Your task to perform on an android device: add a contact Image 0: 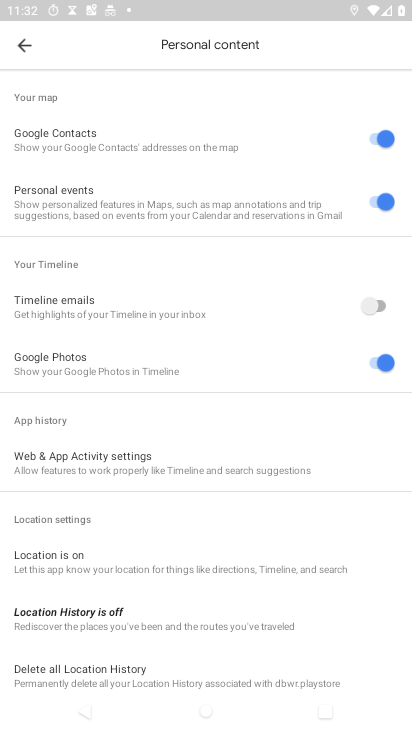
Step 0: press back button
Your task to perform on an android device: add a contact Image 1: 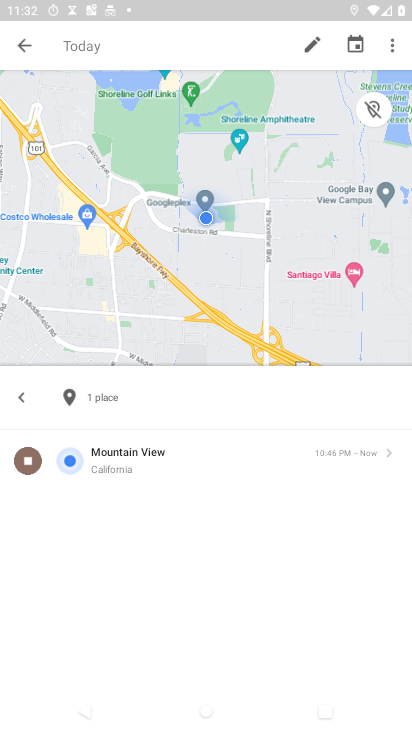
Step 1: press home button
Your task to perform on an android device: add a contact Image 2: 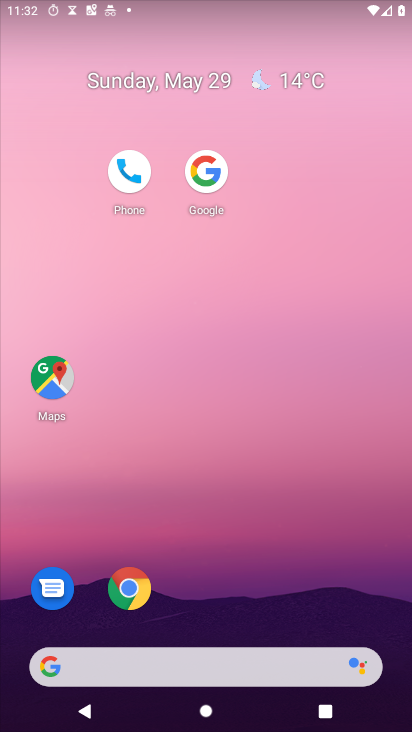
Step 2: drag from (261, 589) to (194, 178)
Your task to perform on an android device: add a contact Image 3: 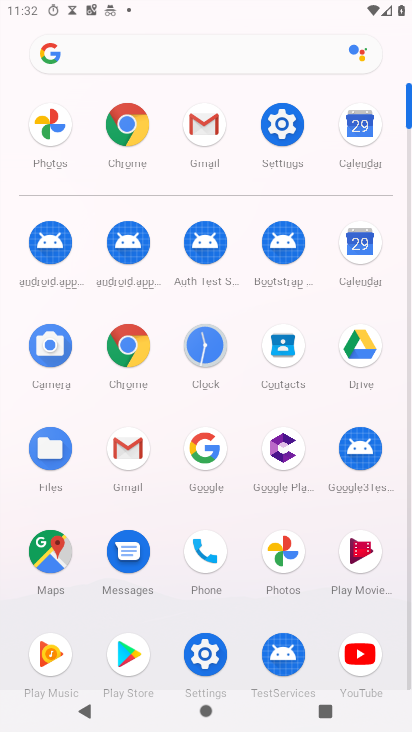
Step 3: drag from (180, 538) to (175, 240)
Your task to perform on an android device: add a contact Image 4: 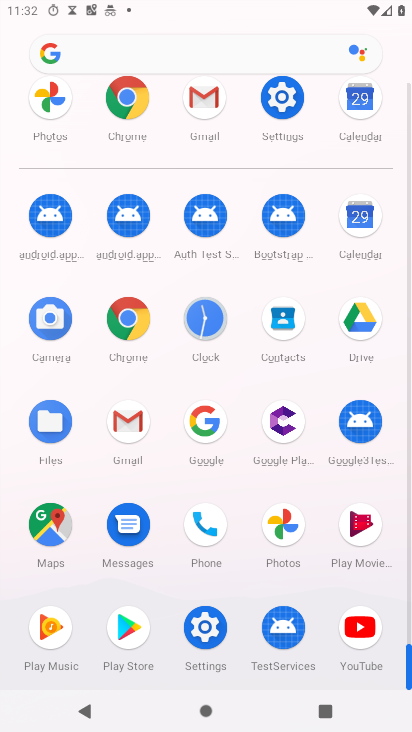
Step 4: click (283, 328)
Your task to perform on an android device: add a contact Image 5: 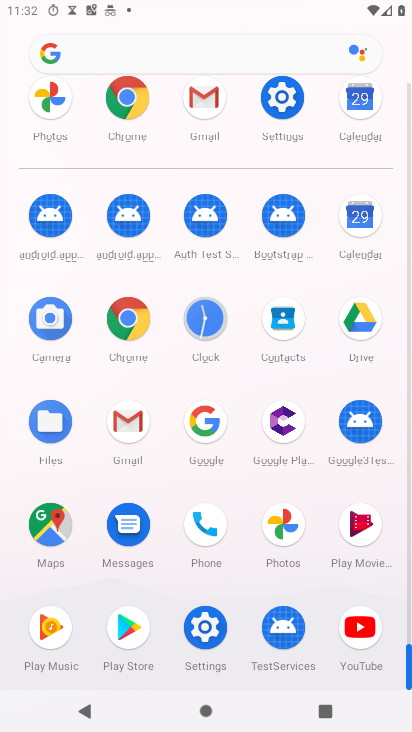
Step 5: click (283, 328)
Your task to perform on an android device: add a contact Image 6: 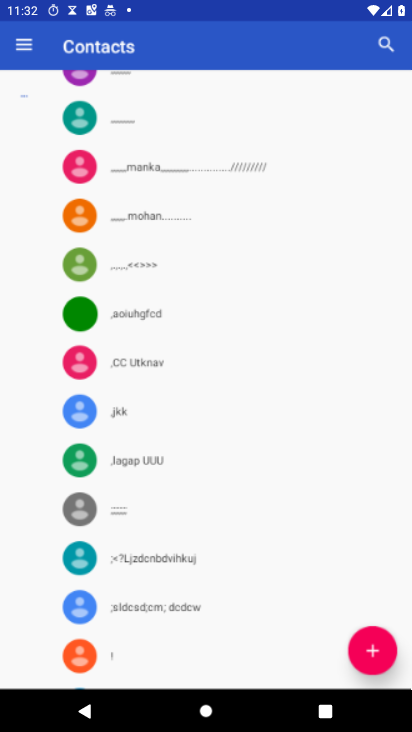
Step 6: click (285, 331)
Your task to perform on an android device: add a contact Image 7: 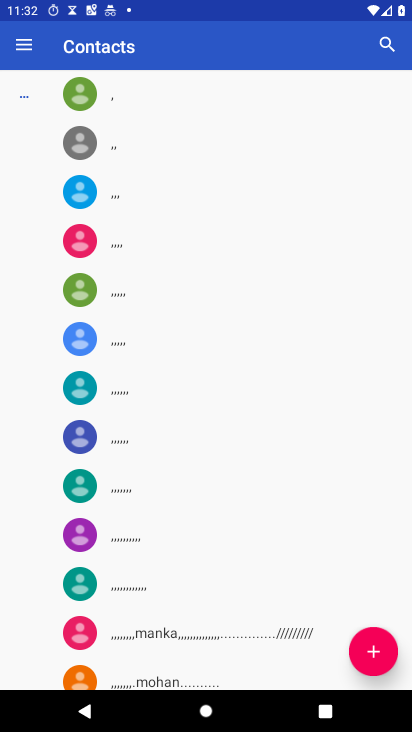
Step 7: click (285, 331)
Your task to perform on an android device: add a contact Image 8: 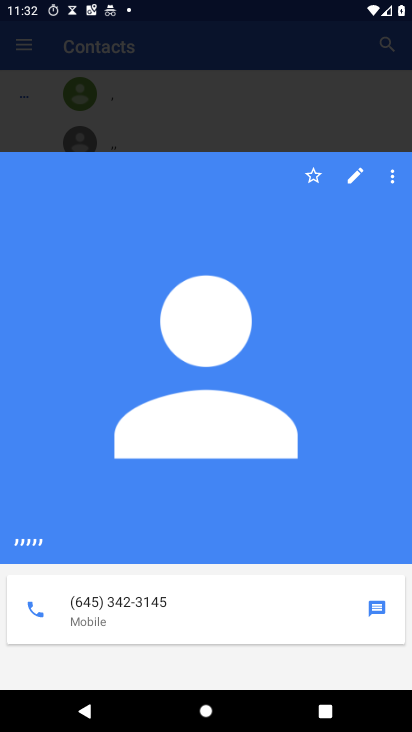
Step 8: click (257, 114)
Your task to perform on an android device: add a contact Image 9: 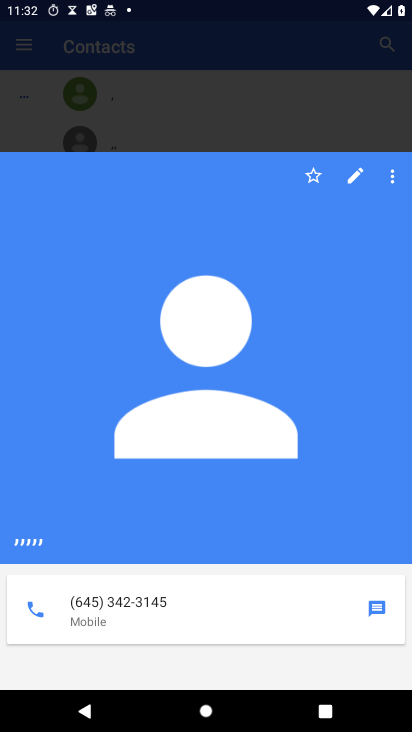
Step 9: click (267, 111)
Your task to perform on an android device: add a contact Image 10: 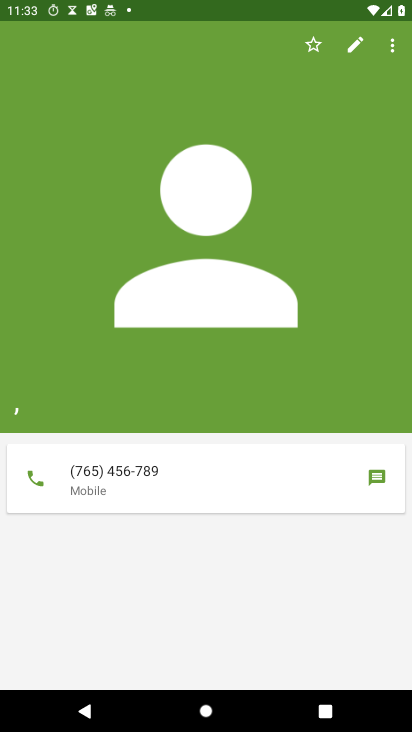
Step 10: press back button
Your task to perform on an android device: add a contact Image 11: 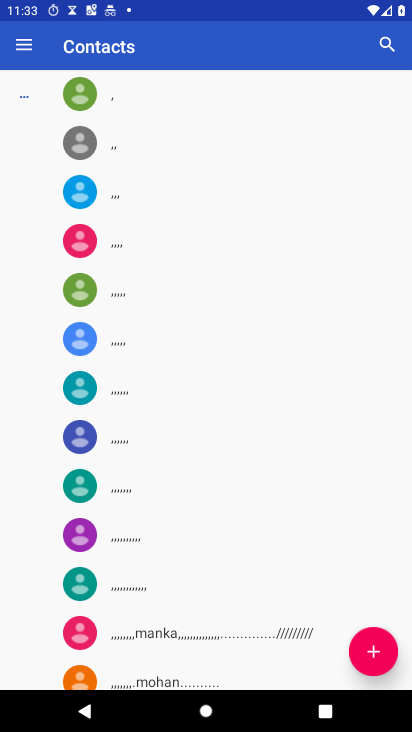
Step 11: press back button
Your task to perform on an android device: add a contact Image 12: 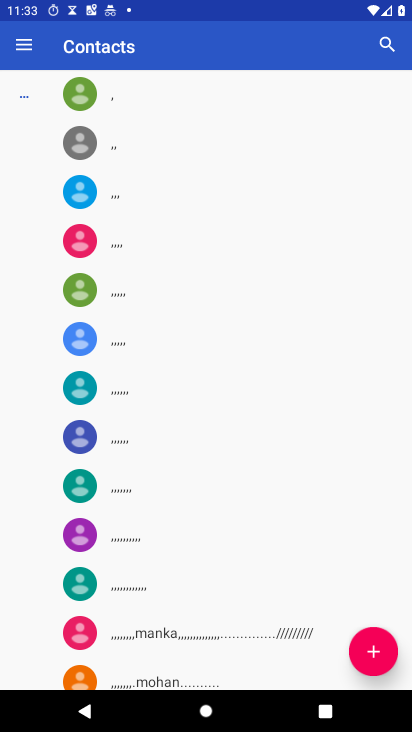
Step 12: press back button
Your task to perform on an android device: add a contact Image 13: 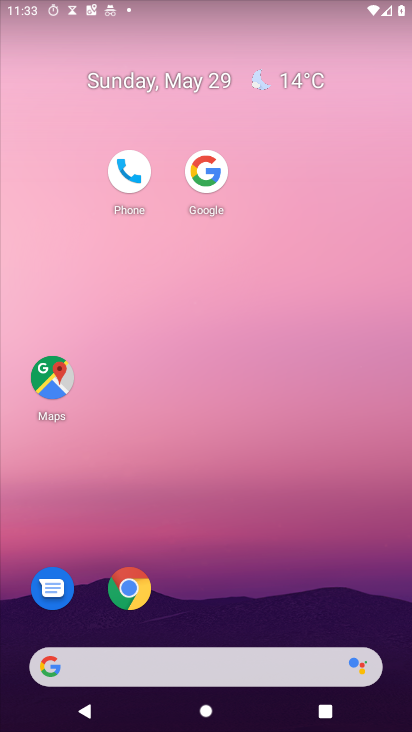
Step 13: drag from (201, 624) to (82, 239)
Your task to perform on an android device: add a contact Image 14: 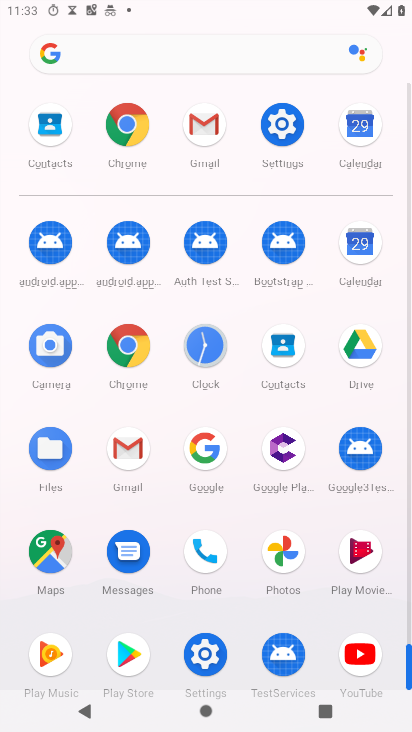
Step 14: click (278, 348)
Your task to perform on an android device: add a contact Image 15: 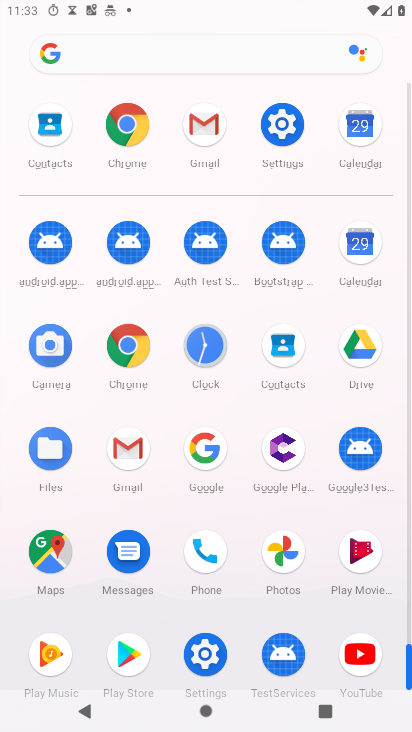
Step 15: click (284, 344)
Your task to perform on an android device: add a contact Image 16: 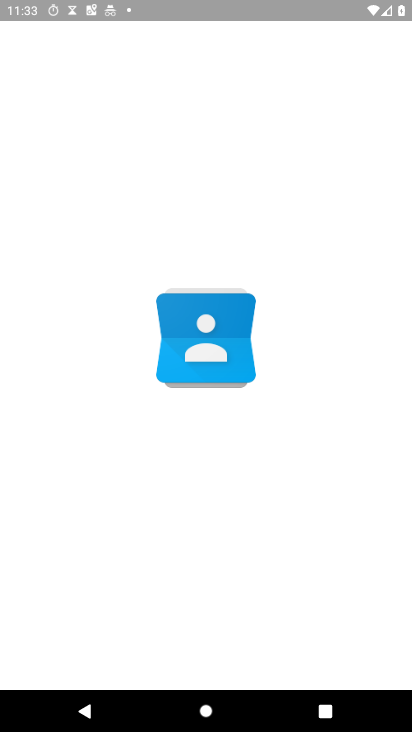
Step 16: click (285, 346)
Your task to perform on an android device: add a contact Image 17: 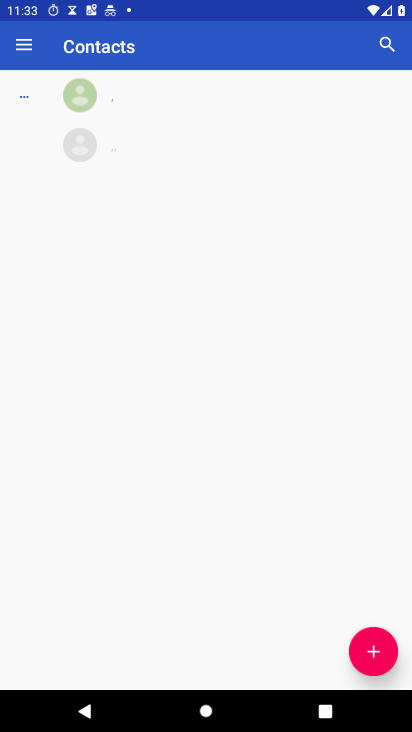
Step 17: click (268, 361)
Your task to perform on an android device: add a contact Image 18: 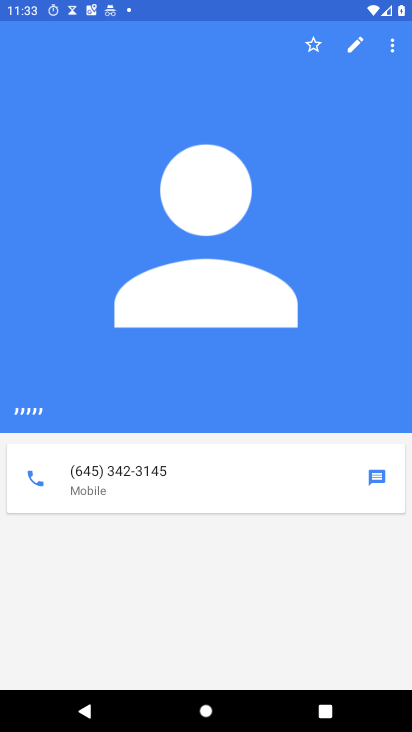
Step 18: press back button
Your task to perform on an android device: add a contact Image 19: 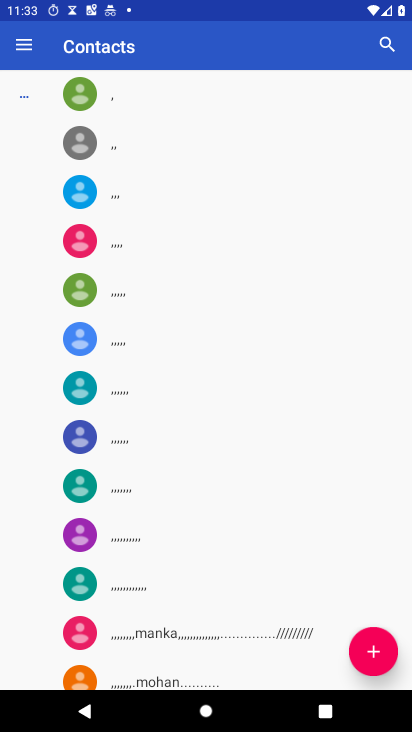
Step 19: click (378, 648)
Your task to perform on an android device: add a contact Image 20: 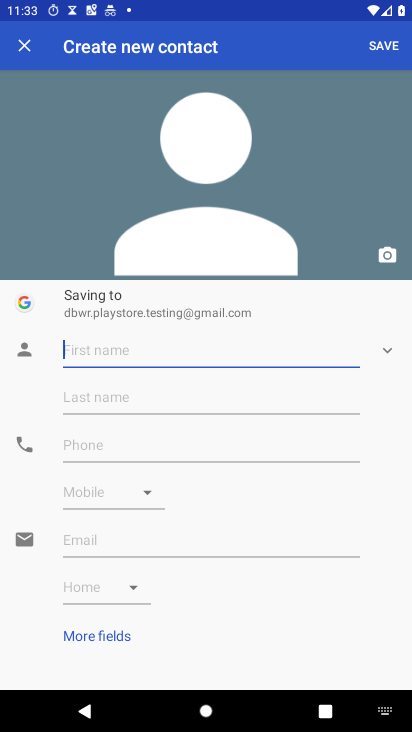
Step 20: type "hvodshfjdesfj"
Your task to perform on an android device: add a contact Image 21: 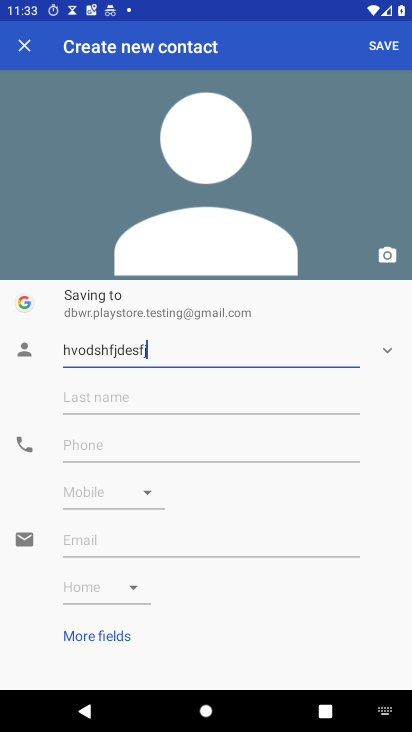
Step 21: click (84, 446)
Your task to perform on an android device: add a contact Image 22: 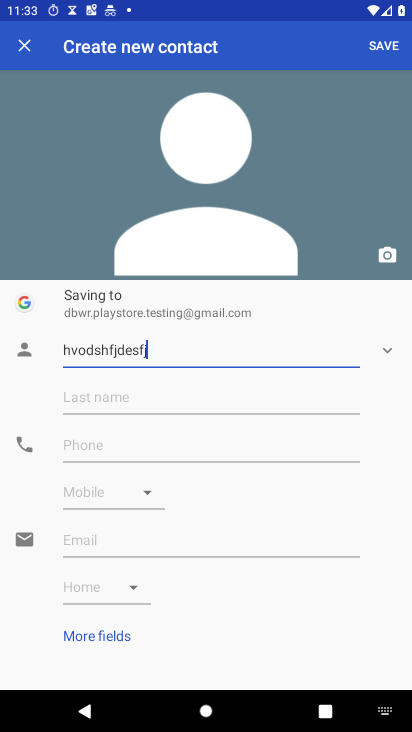
Step 22: click (84, 446)
Your task to perform on an android device: add a contact Image 23: 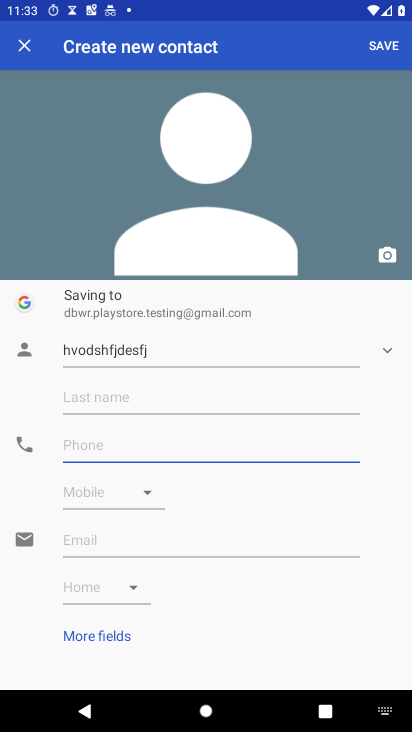
Step 23: type "87897r997r89r3983"
Your task to perform on an android device: add a contact Image 24: 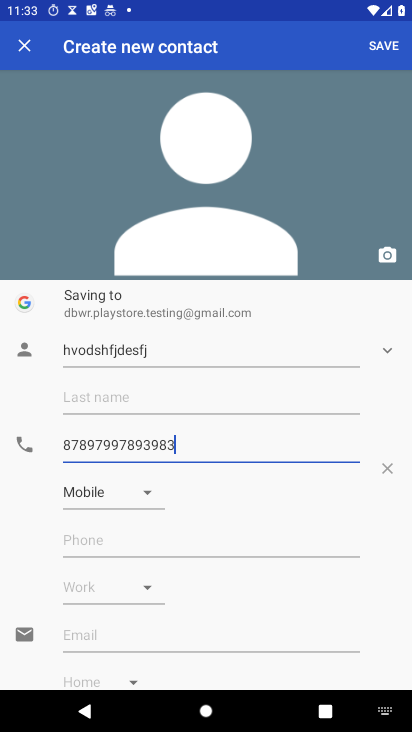
Step 24: click (391, 48)
Your task to perform on an android device: add a contact Image 25: 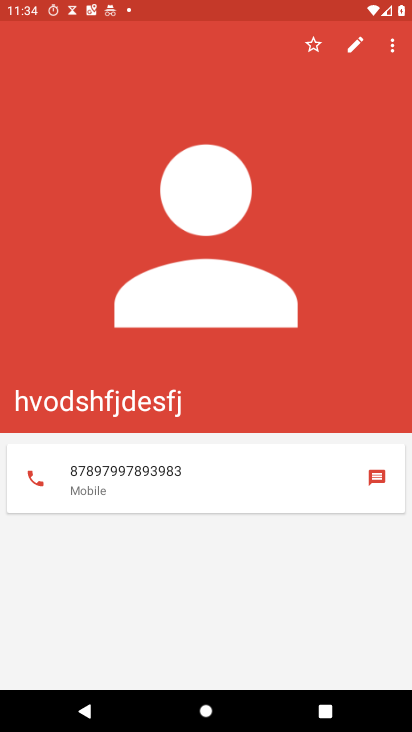
Step 25: task complete